Your task to perform on an android device: Find coffee shops on Maps Image 0: 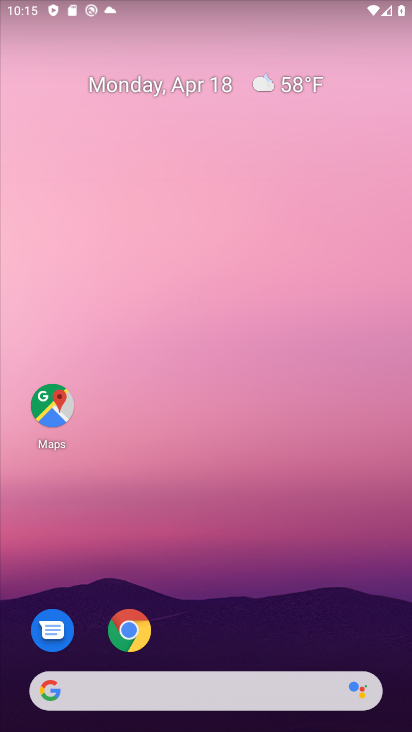
Step 0: click (54, 406)
Your task to perform on an android device: Find coffee shops on Maps Image 1: 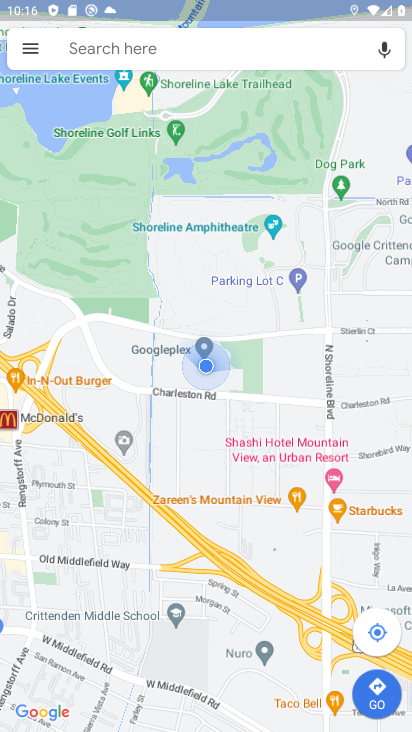
Step 1: click (144, 59)
Your task to perform on an android device: Find coffee shops on Maps Image 2: 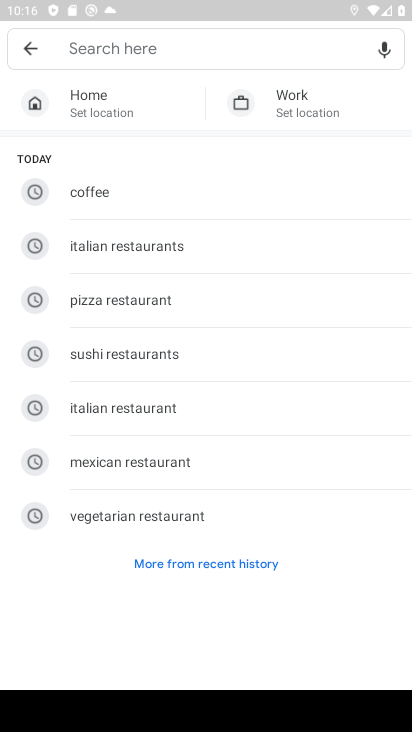
Step 2: click (231, 191)
Your task to perform on an android device: Find coffee shops on Maps Image 3: 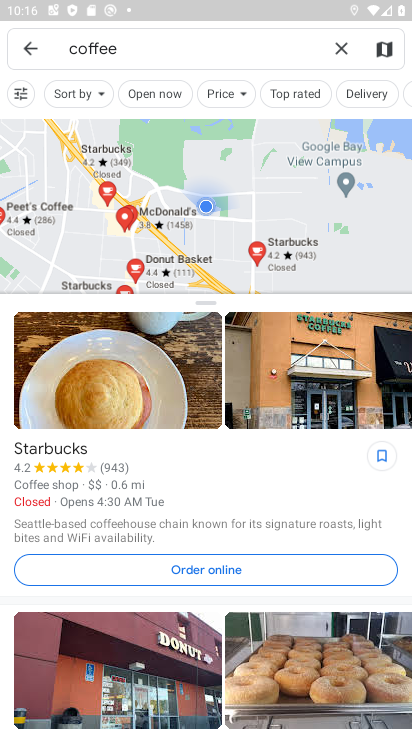
Step 3: task complete